Your task to perform on an android device: Check the weather Image 0: 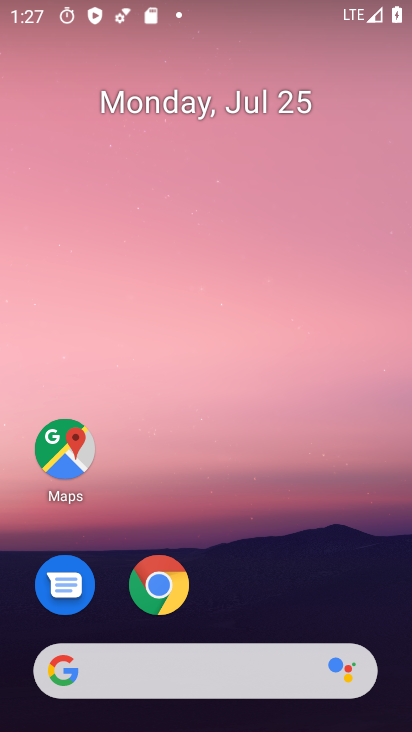
Step 0: click (161, 613)
Your task to perform on an android device: Check the weather Image 1: 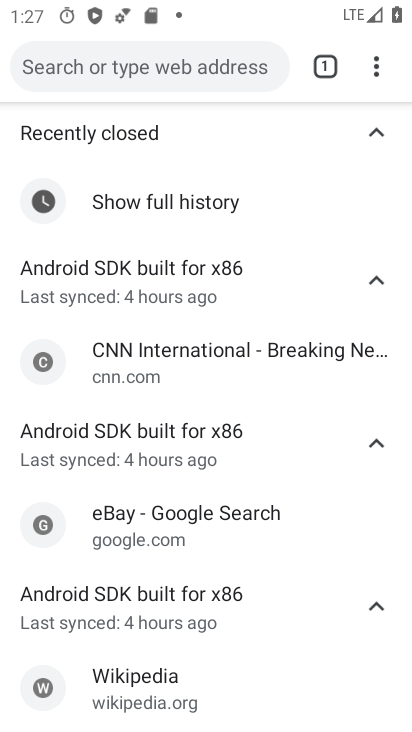
Step 1: click (145, 77)
Your task to perform on an android device: Check the weather Image 2: 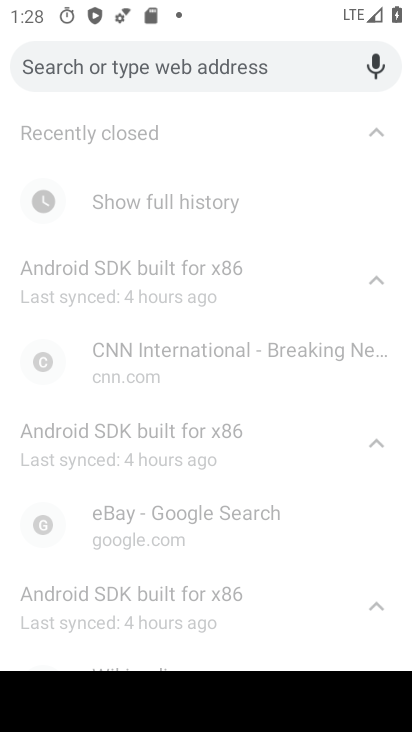
Step 2: type "weather"
Your task to perform on an android device: Check the weather Image 3: 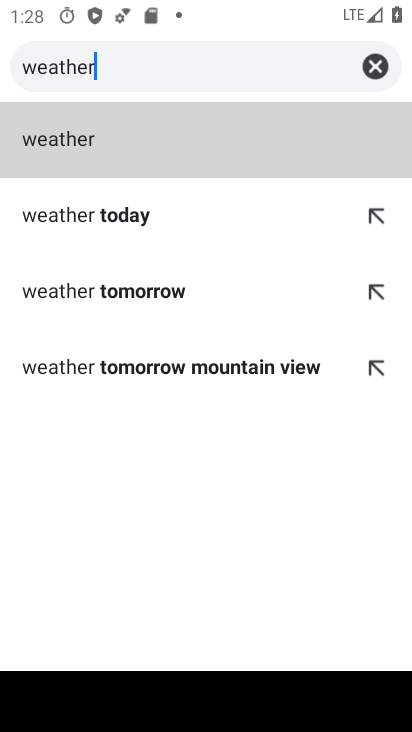
Step 3: click (118, 134)
Your task to perform on an android device: Check the weather Image 4: 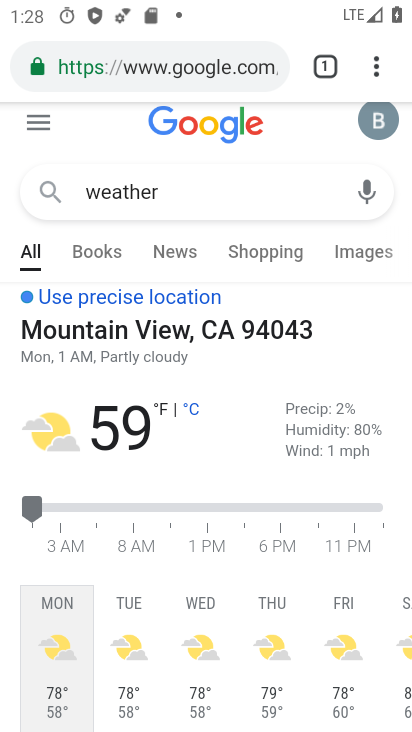
Step 4: task complete